Your task to perform on an android device: Go to Amazon Image 0: 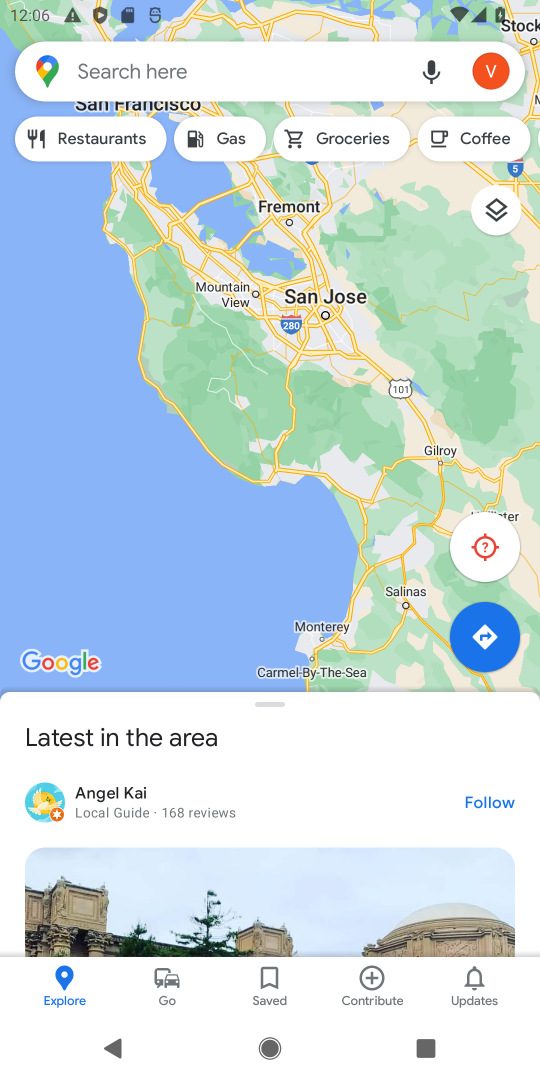
Step 0: press home button
Your task to perform on an android device: Go to Amazon Image 1: 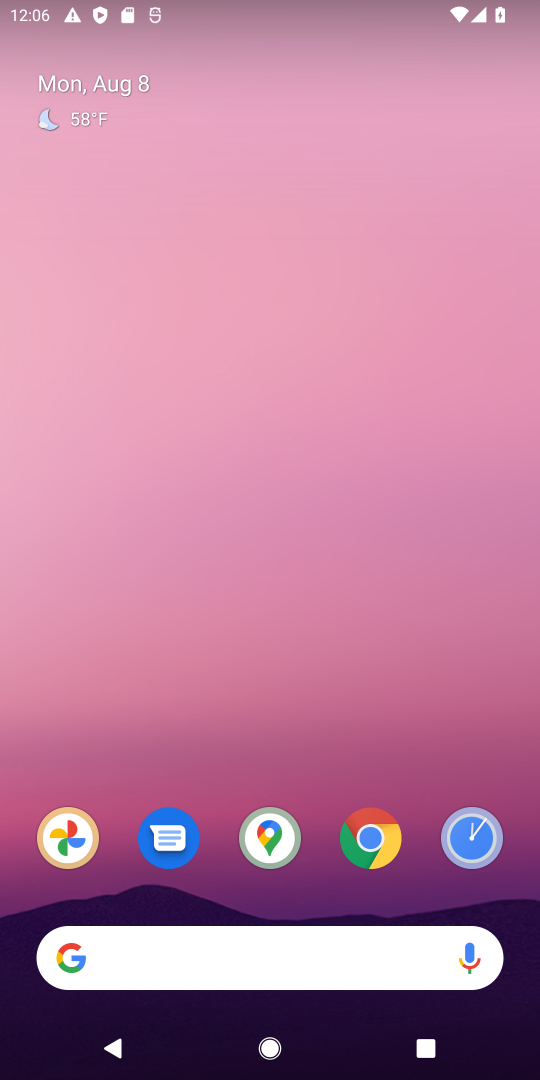
Step 1: click (65, 965)
Your task to perform on an android device: Go to Amazon Image 2: 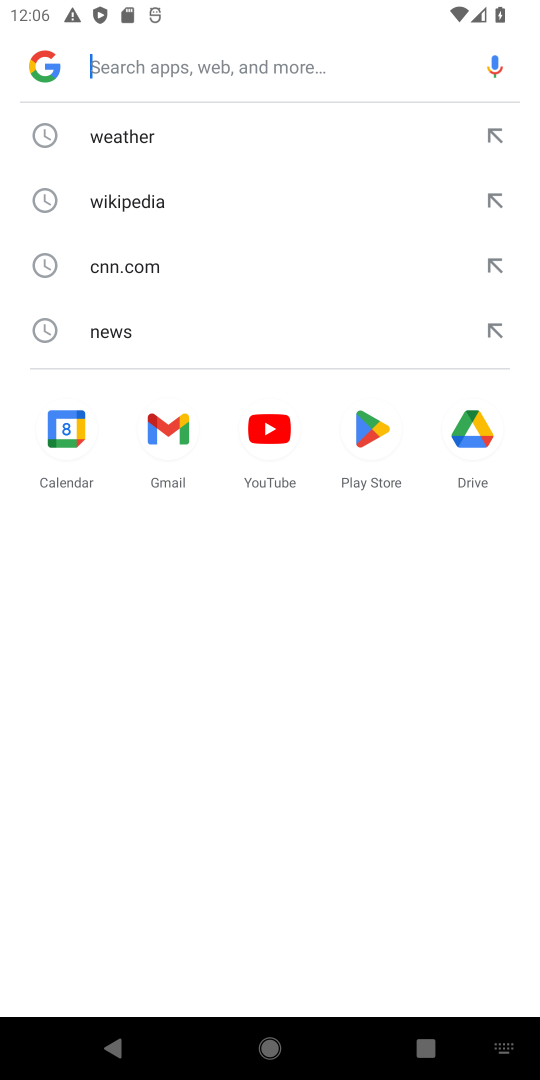
Step 2: type "Amazon"
Your task to perform on an android device: Go to Amazon Image 3: 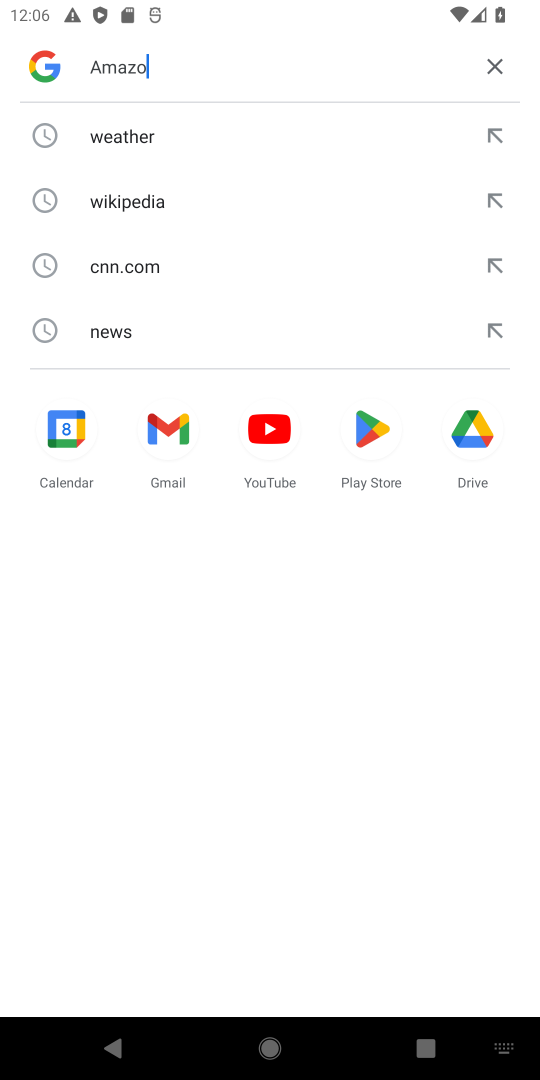
Step 3: press enter
Your task to perform on an android device: Go to Amazon Image 4: 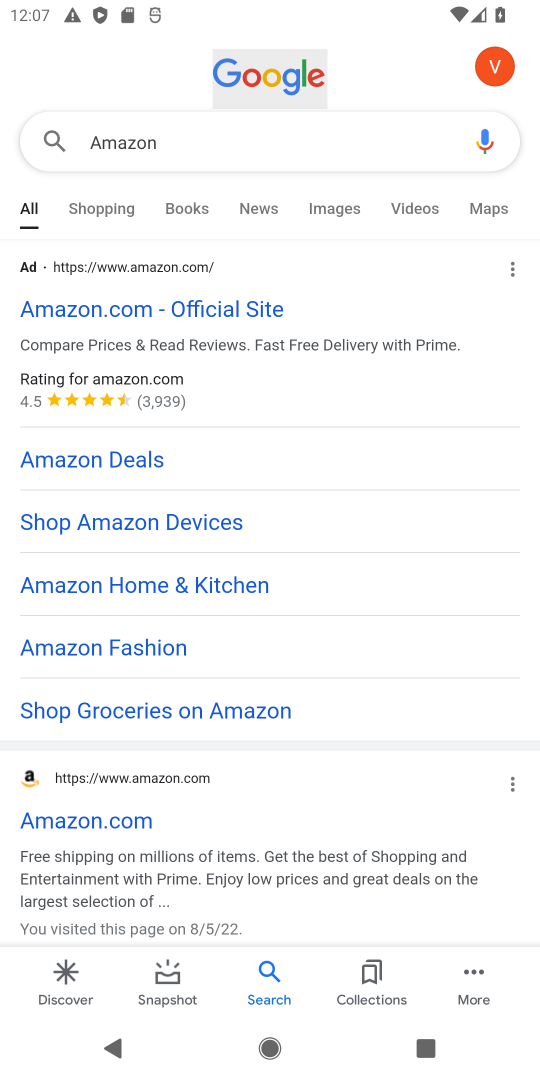
Step 4: click (108, 317)
Your task to perform on an android device: Go to Amazon Image 5: 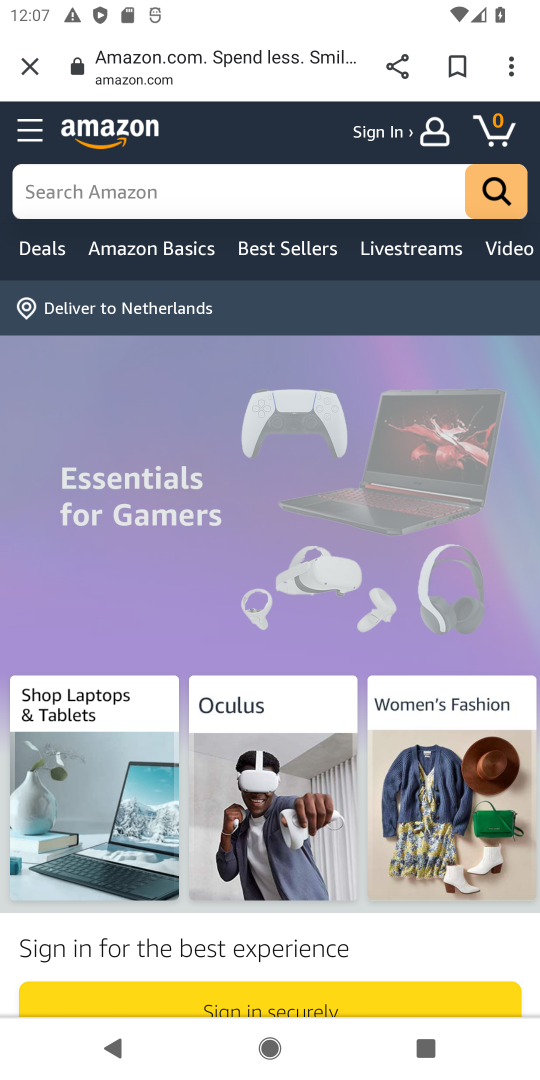
Step 5: task complete